Your task to perform on an android device: What's on the menu at Papa Murphy's? Image 0: 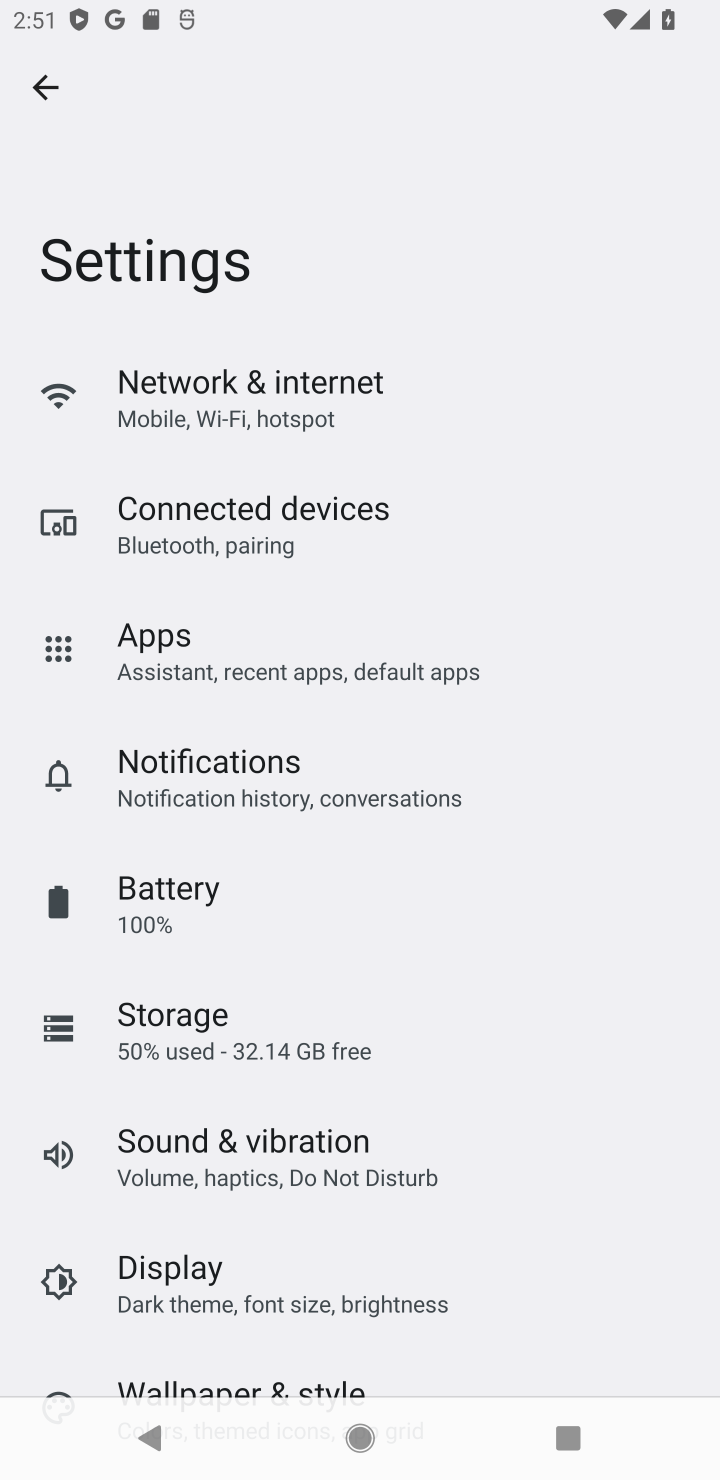
Step 0: press home button
Your task to perform on an android device: What's on the menu at Papa Murphy's? Image 1: 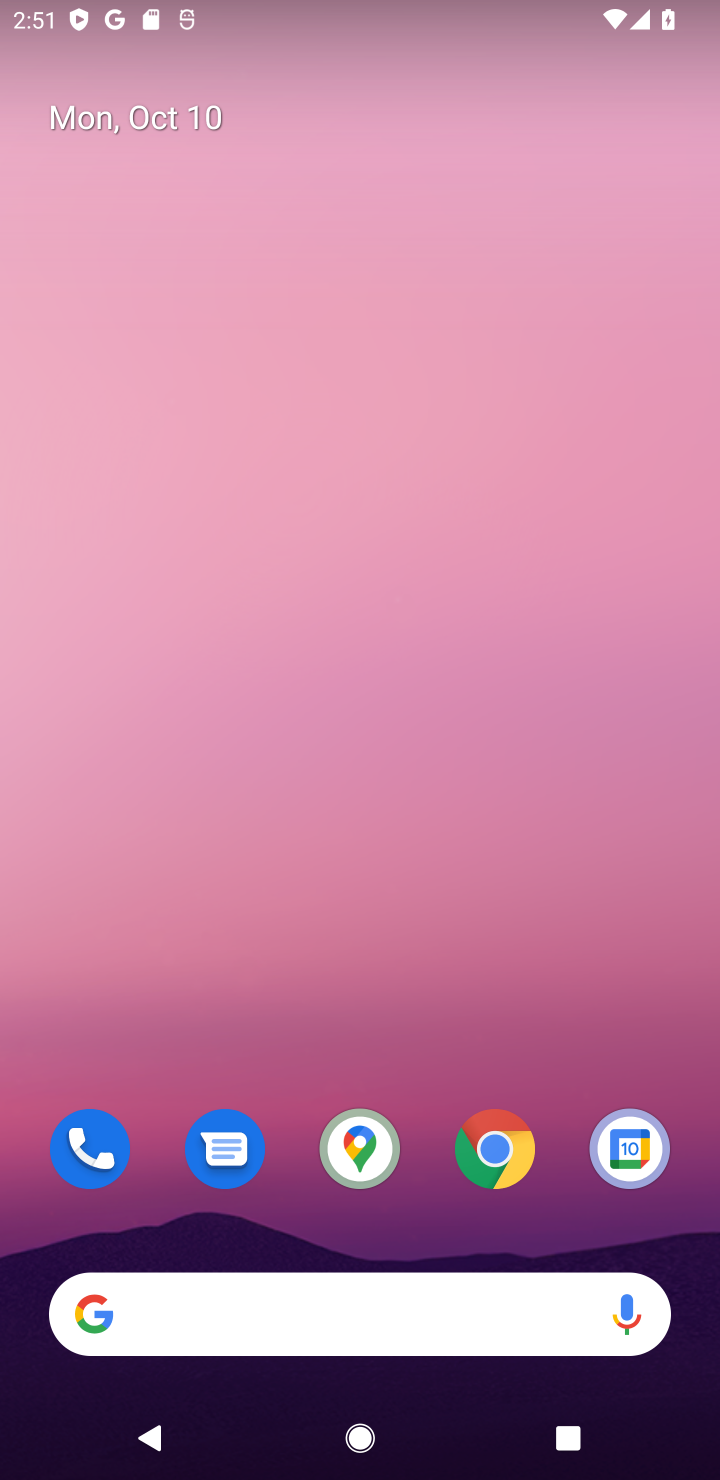
Step 1: click (249, 1328)
Your task to perform on an android device: What's on the menu at Papa Murphy's? Image 2: 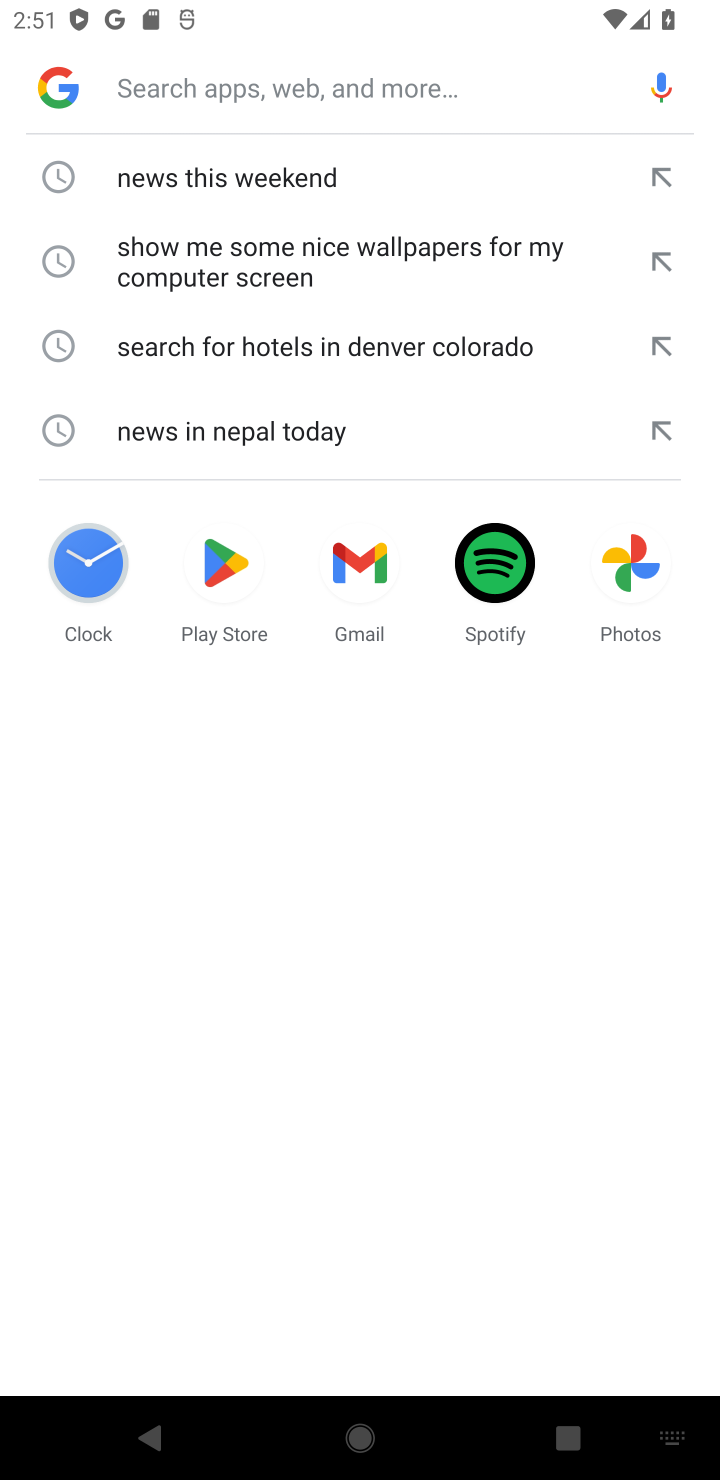
Step 2: type "the menu at Papa Murphy's"
Your task to perform on an android device: What's on the menu at Papa Murphy's? Image 3: 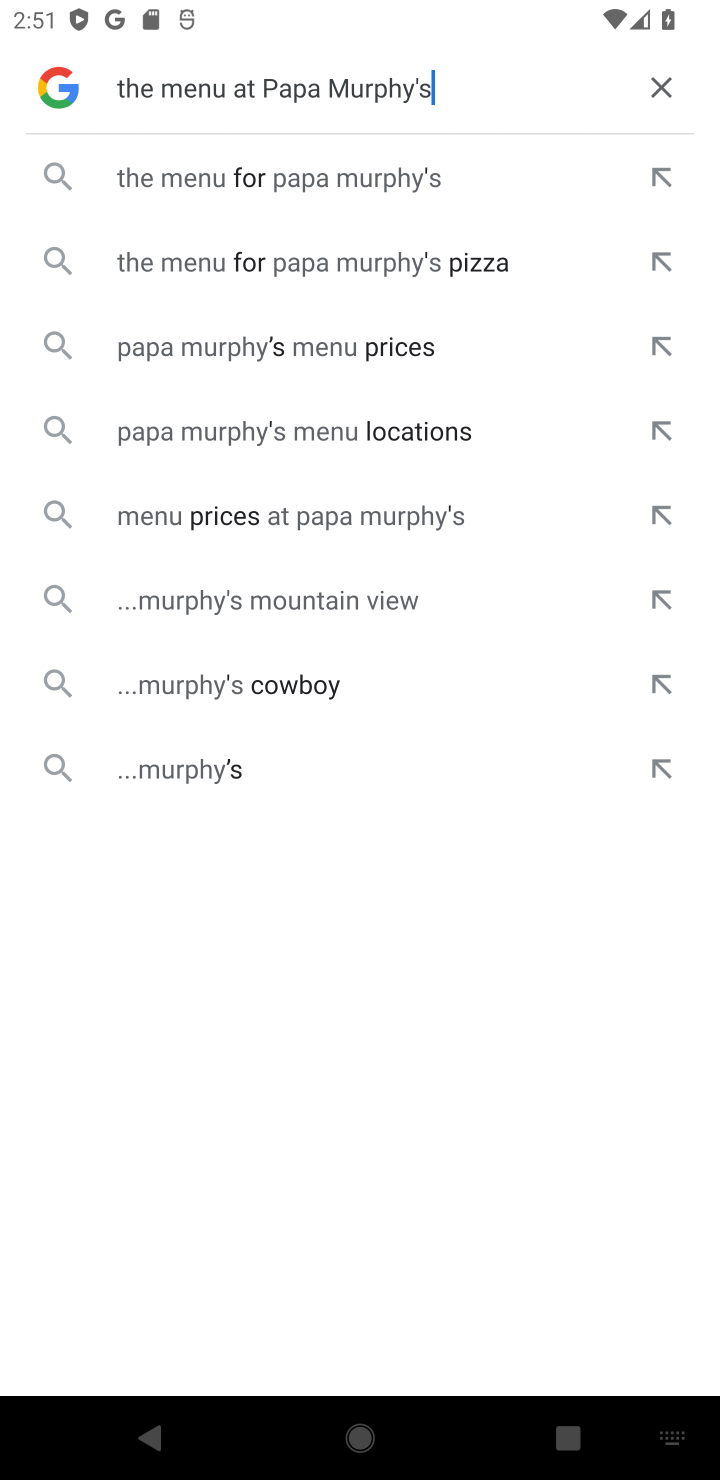
Step 3: click (395, 177)
Your task to perform on an android device: What's on the menu at Papa Murphy's? Image 4: 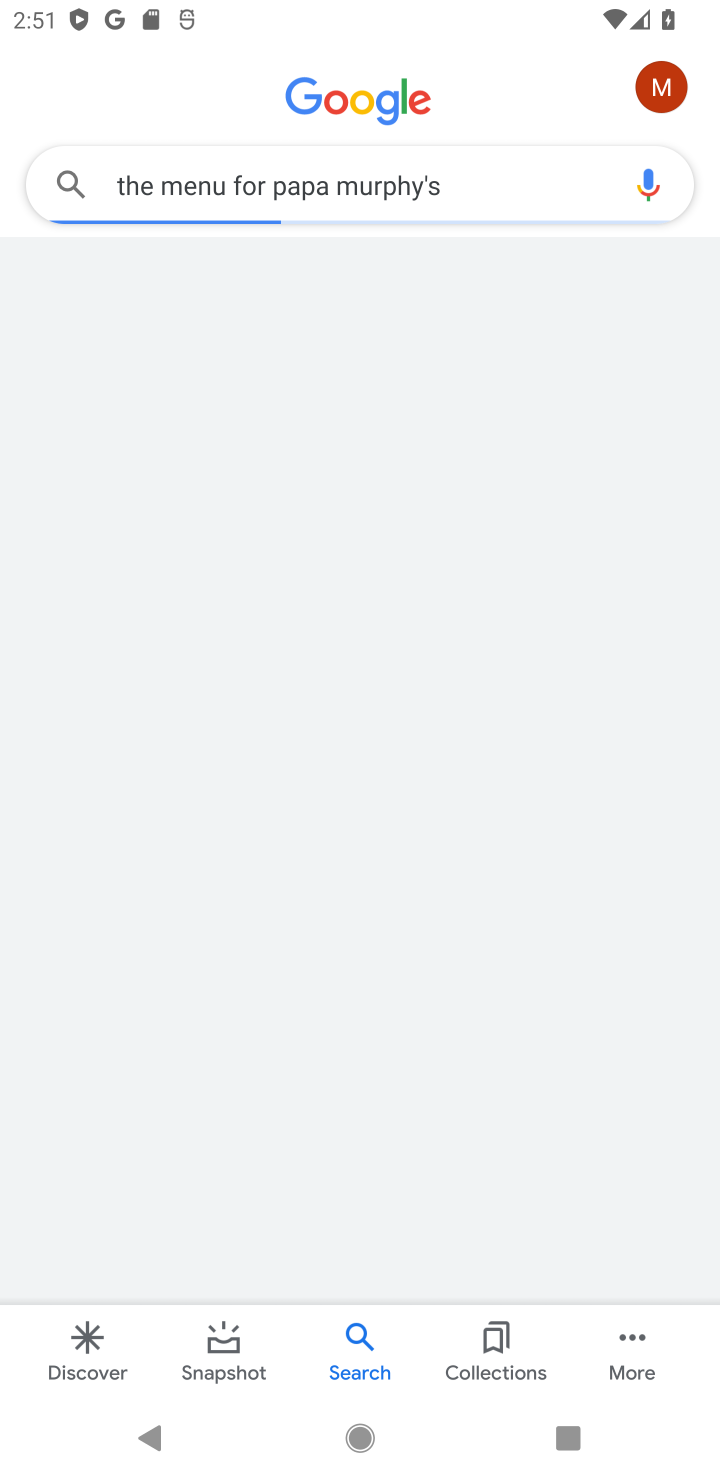
Step 4: task complete